Your task to perform on an android device: Show me recent news Image 0: 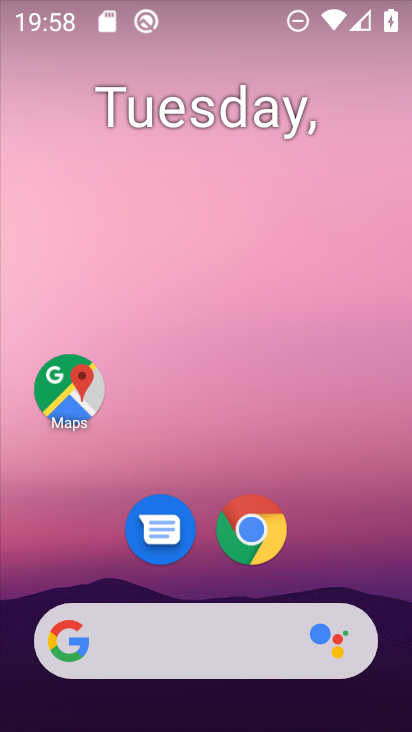
Step 0: drag from (2, 179) to (403, 208)
Your task to perform on an android device: Show me recent news Image 1: 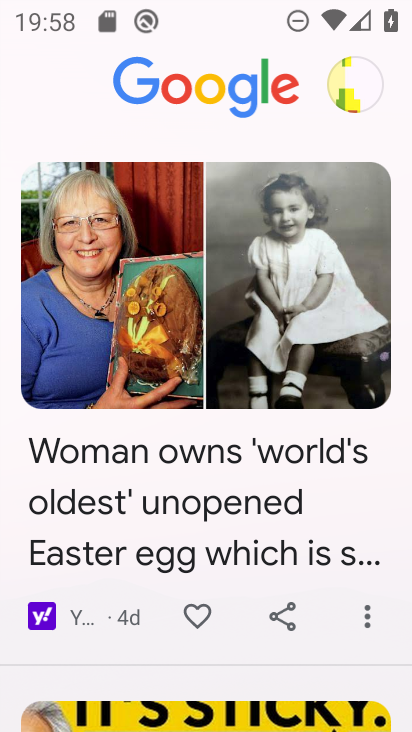
Step 1: task complete